Your task to perform on an android device: turn on the 24-hour format for clock Image 0: 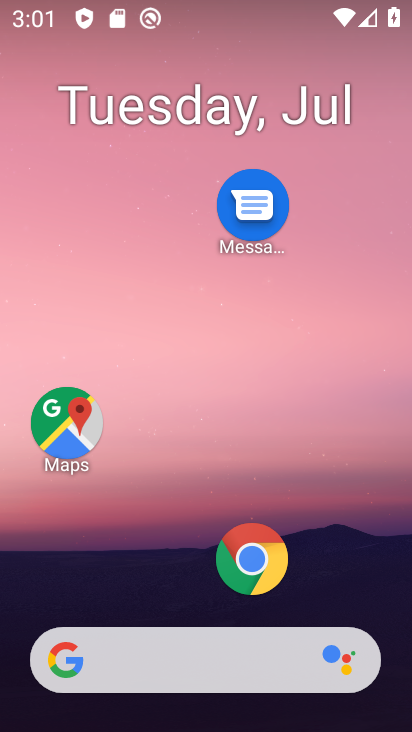
Step 0: drag from (141, 500) to (177, 24)
Your task to perform on an android device: turn on the 24-hour format for clock Image 1: 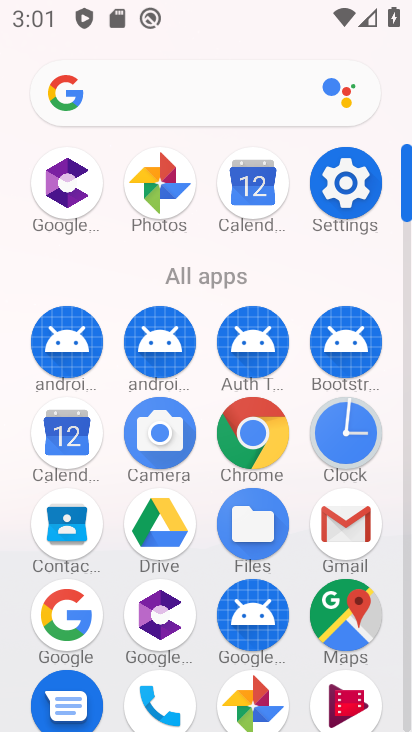
Step 1: click (320, 433)
Your task to perform on an android device: turn on the 24-hour format for clock Image 2: 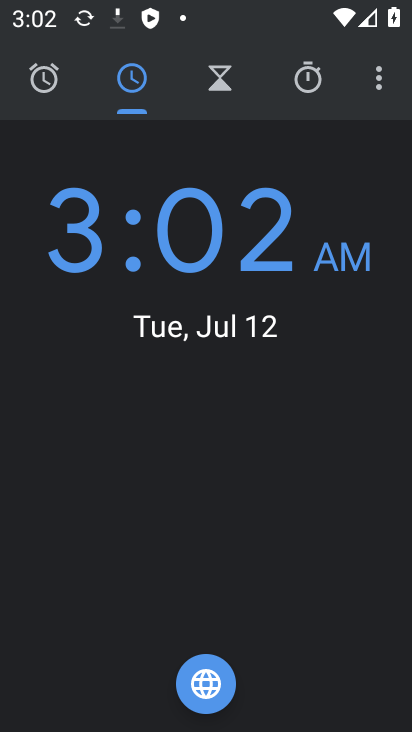
Step 2: click (382, 77)
Your task to perform on an android device: turn on the 24-hour format for clock Image 3: 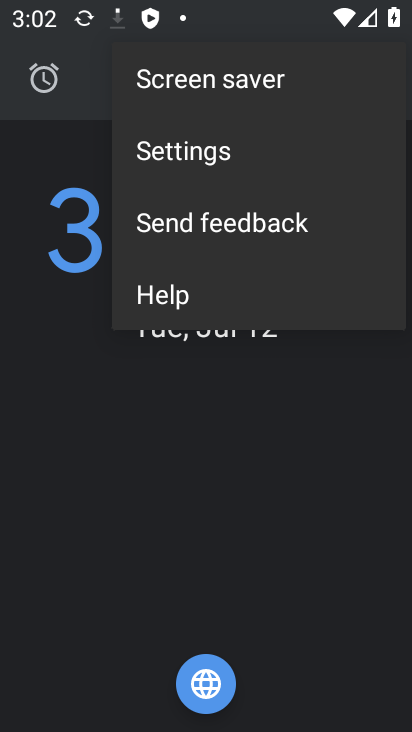
Step 3: click (181, 136)
Your task to perform on an android device: turn on the 24-hour format for clock Image 4: 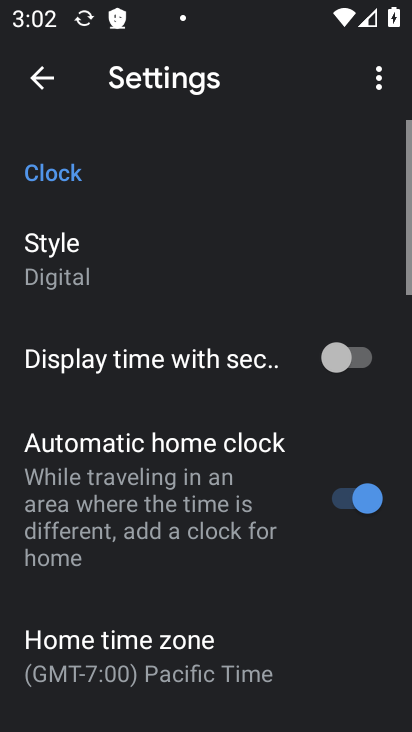
Step 4: drag from (153, 664) to (200, 146)
Your task to perform on an android device: turn on the 24-hour format for clock Image 5: 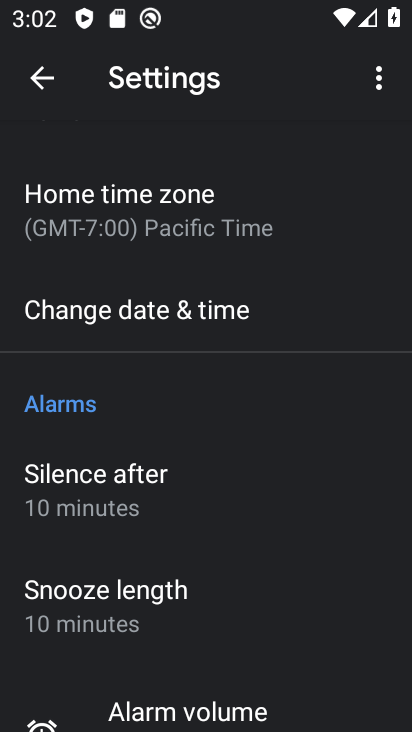
Step 5: click (102, 301)
Your task to perform on an android device: turn on the 24-hour format for clock Image 6: 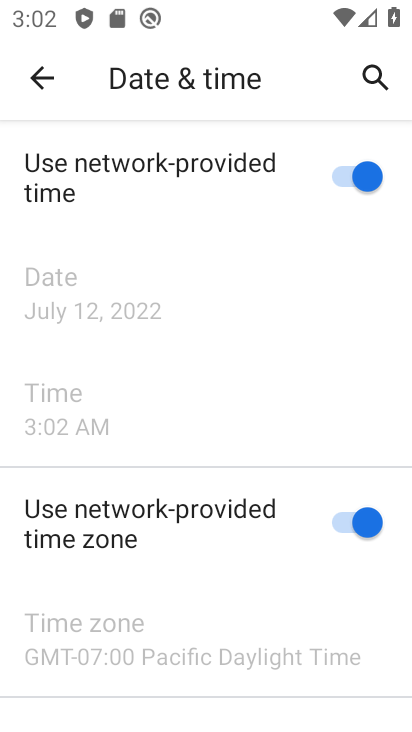
Step 6: drag from (174, 654) to (253, 226)
Your task to perform on an android device: turn on the 24-hour format for clock Image 7: 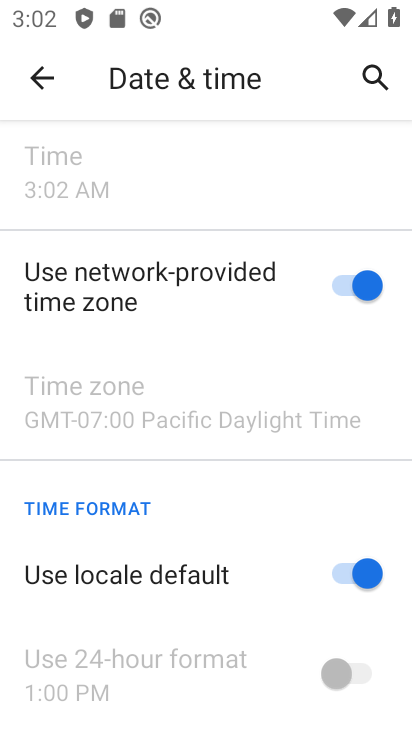
Step 7: click (357, 573)
Your task to perform on an android device: turn on the 24-hour format for clock Image 8: 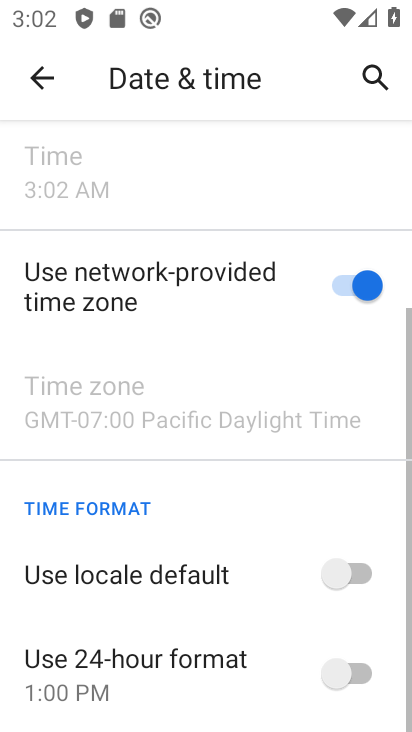
Step 8: click (343, 676)
Your task to perform on an android device: turn on the 24-hour format for clock Image 9: 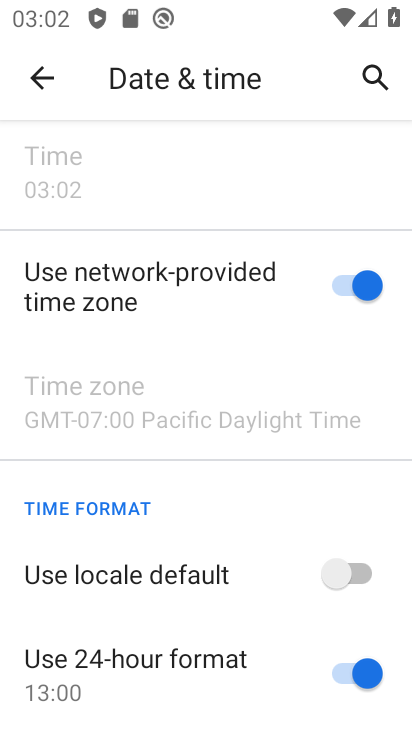
Step 9: task complete